Your task to perform on an android device: Toggle the flashlight Image 0: 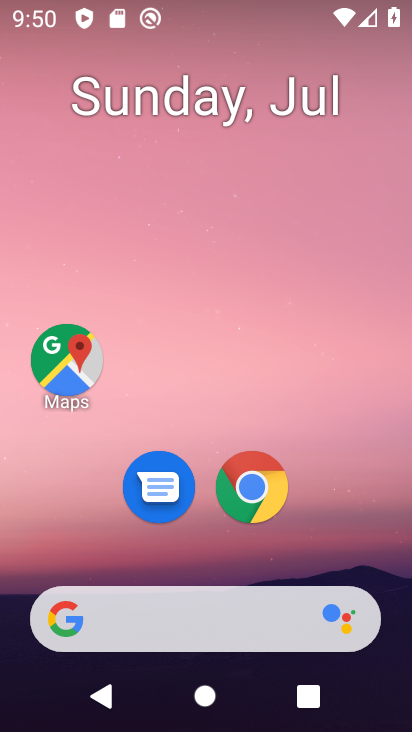
Step 0: drag from (194, 566) to (315, 8)
Your task to perform on an android device: Toggle the flashlight Image 1: 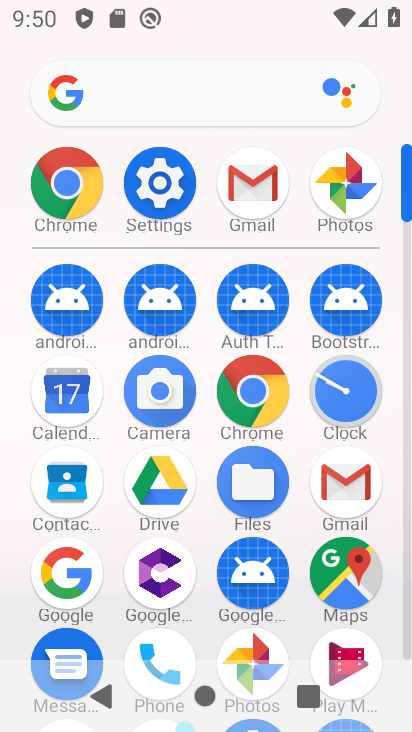
Step 1: click (152, 167)
Your task to perform on an android device: Toggle the flashlight Image 2: 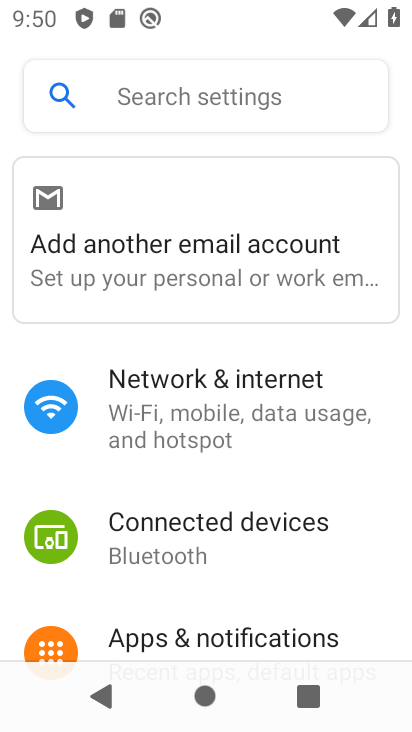
Step 2: click (151, 88)
Your task to perform on an android device: Toggle the flashlight Image 3: 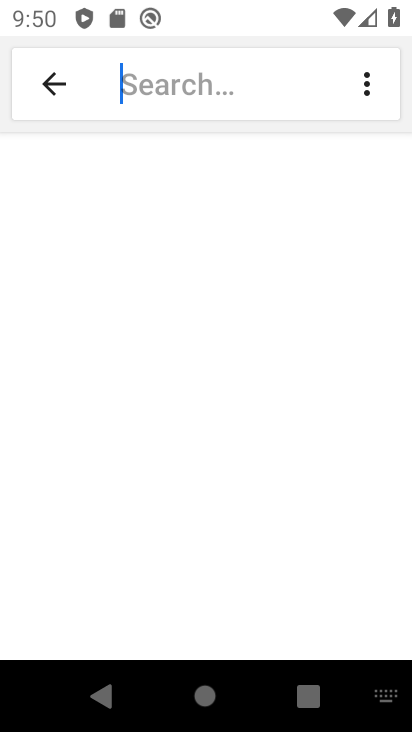
Step 3: type "flashlight"
Your task to perform on an android device: Toggle the flashlight Image 4: 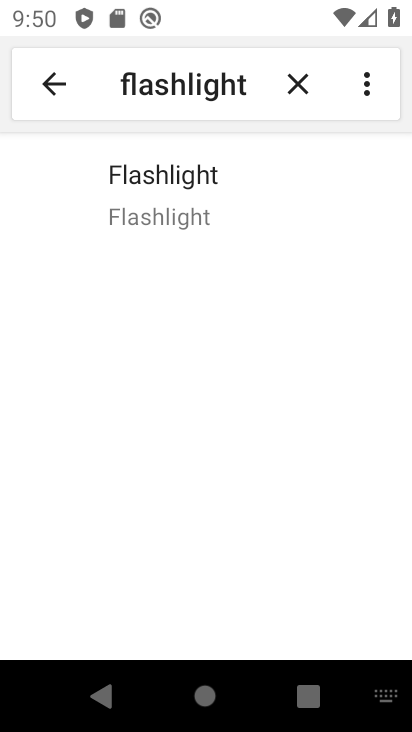
Step 4: click (134, 222)
Your task to perform on an android device: Toggle the flashlight Image 5: 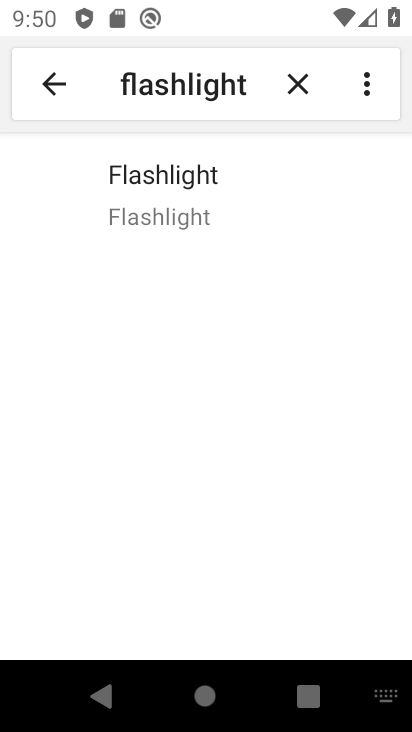
Step 5: task complete